Your task to perform on an android device: change the clock display to show seconds Image 0: 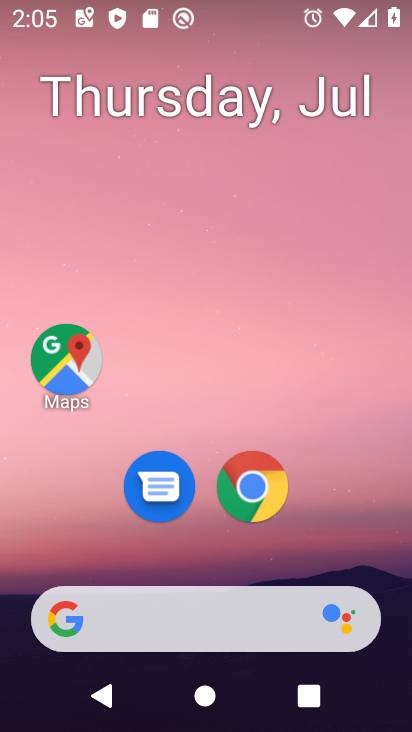
Step 0: drag from (171, 499) to (244, 34)
Your task to perform on an android device: change the clock display to show seconds Image 1: 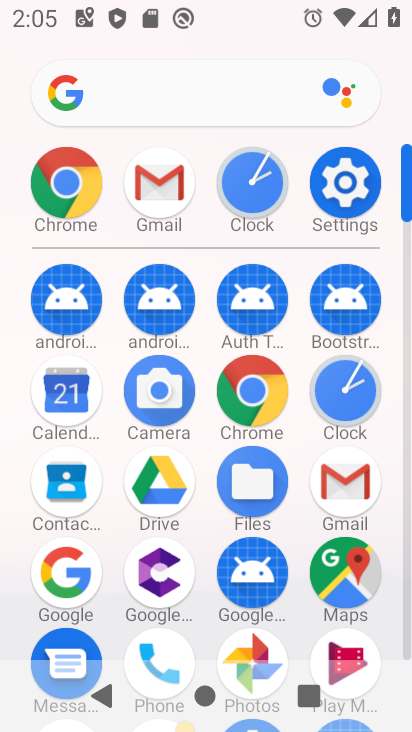
Step 1: click (358, 393)
Your task to perform on an android device: change the clock display to show seconds Image 2: 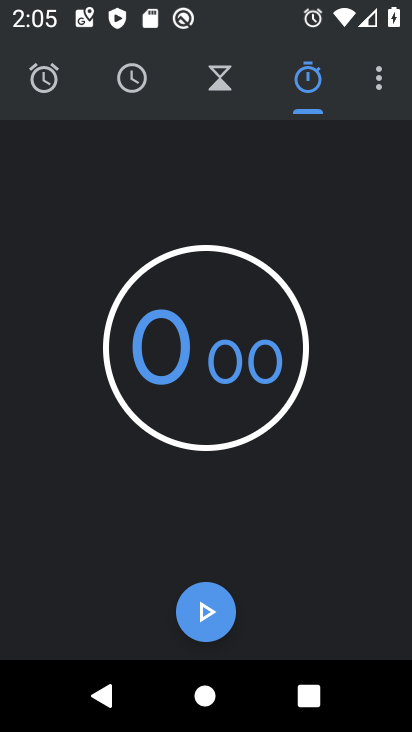
Step 2: click (383, 92)
Your task to perform on an android device: change the clock display to show seconds Image 3: 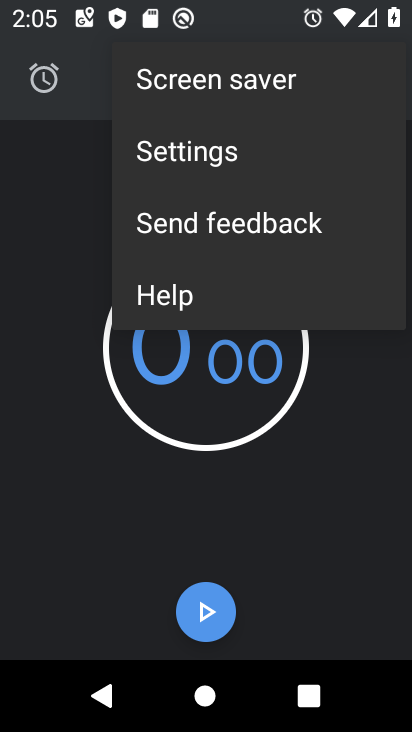
Step 3: click (168, 157)
Your task to perform on an android device: change the clock display to show seconds Image 4: 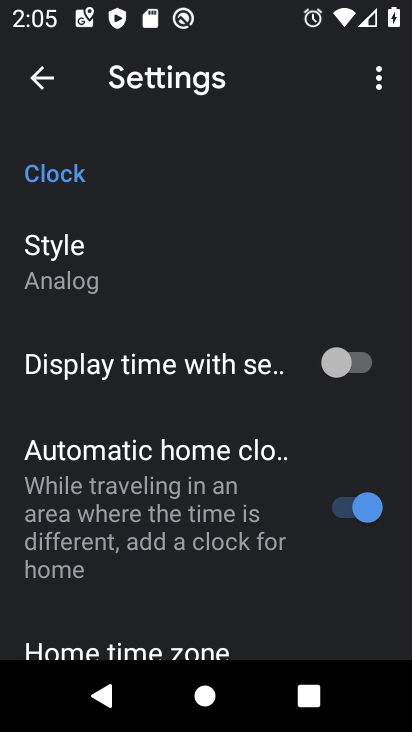
Step 4: click (84, 249)
Your task to perform on an android device: change the clock display to show seconds Image 5: 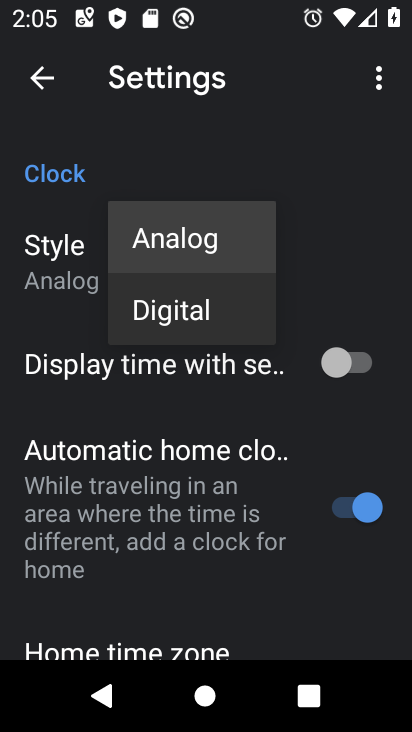
Step 5: click (180, 310)
Your task to perform on an android device: change the clock display to show seconds Image 6: 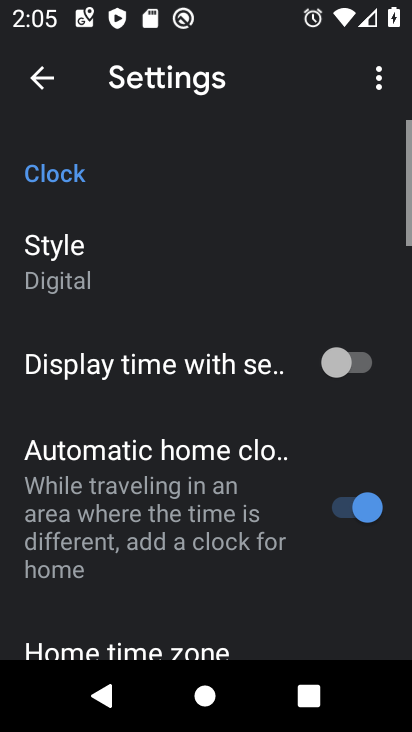
Step 6: click (333, 367)
Your task to perform on an android device: change the clock display to show seconds Image 7: 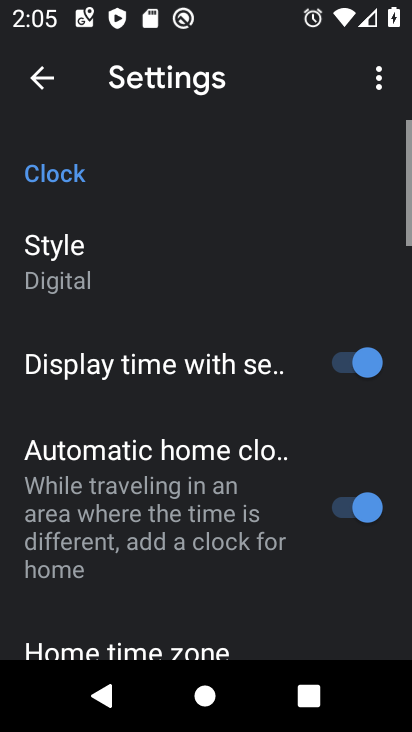
Step 7: task complete